Your task to perform on an android device: open app "Clock" Image 0: 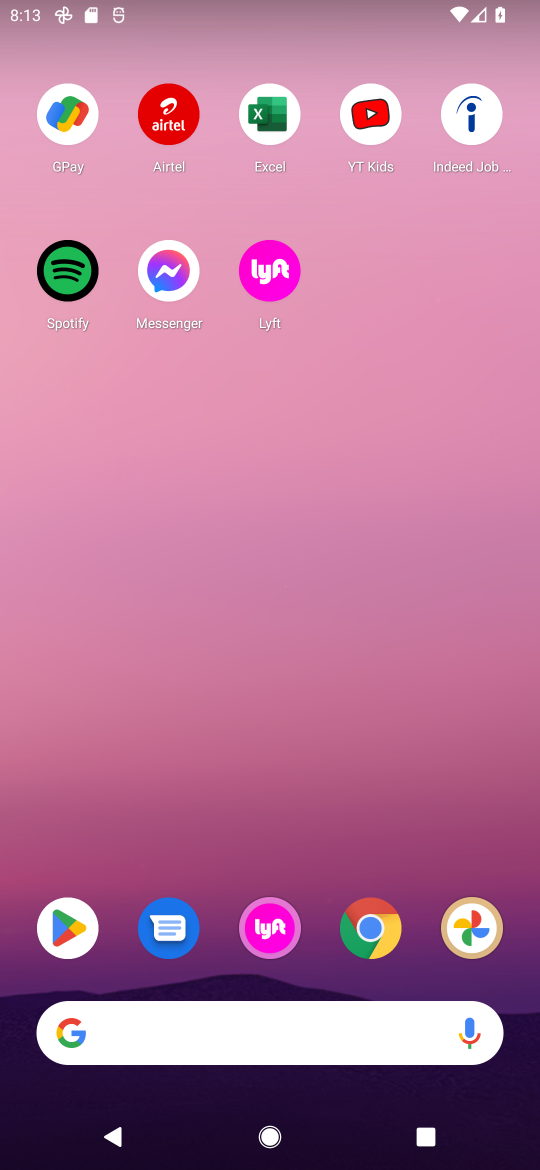
Step 0: drag from (187, 729) to (245, 227)
Your task to perform on an android device: open app "Clock" Image 1: 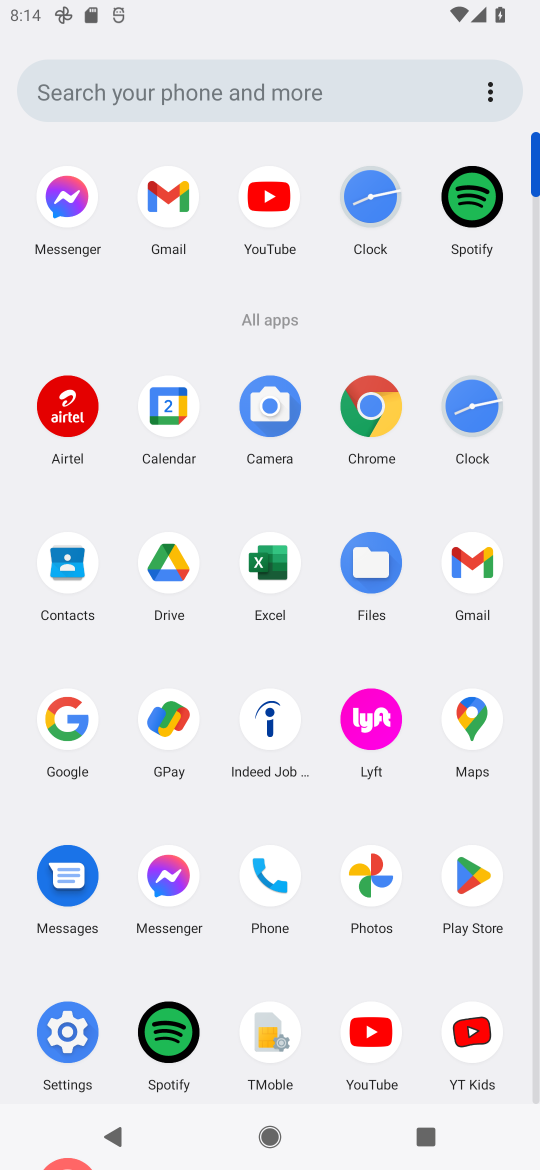
Step 1: click (394, 185)
Your task to perform on an android device: open app "Clock" Image 2: 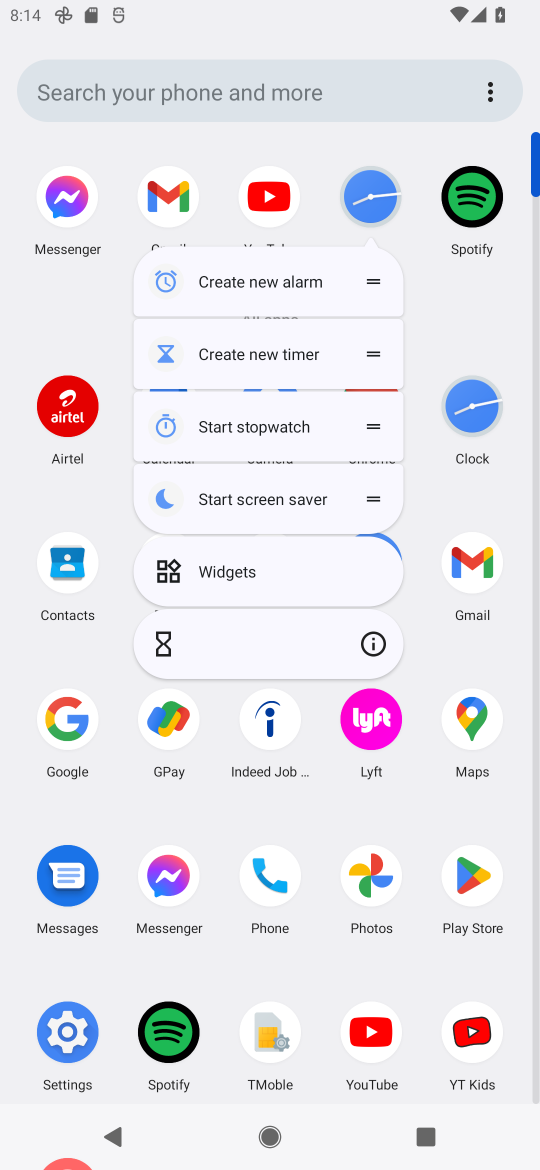
Step 2: click (384, 196)
Your task to perform on an android device: open app "Clock" Image 3: 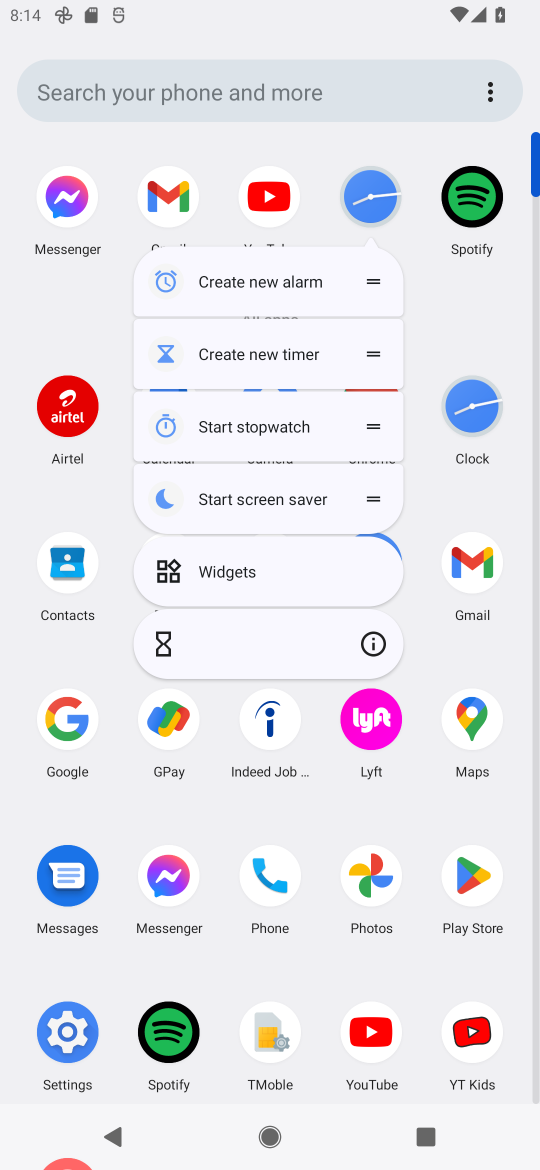
Step 3: click (384, 196)
Your task to perform on an android device: open app "Clock" Image 4: 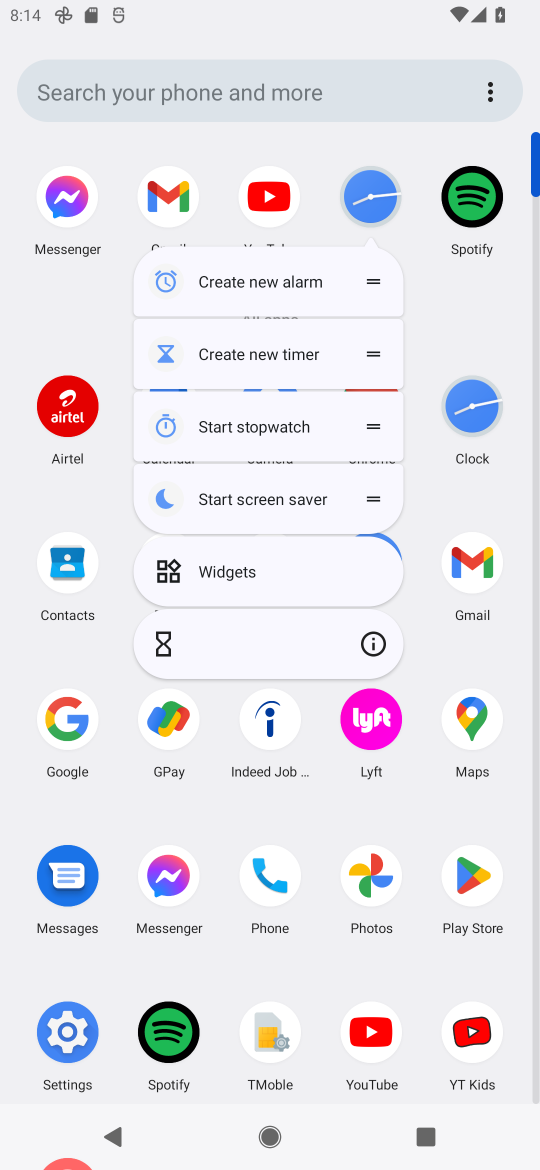
Step 4: click (384, 196)
Your task to perform on an android device: open app "Clock" Image 5: 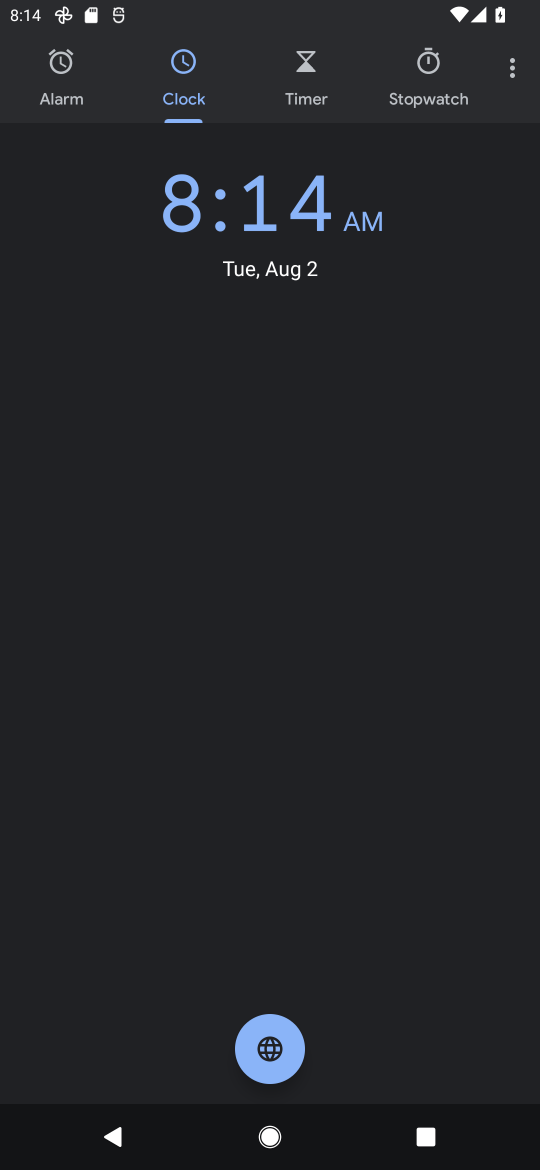
Step 5: task complete